Your task to perform on an android device: Open Reddit.com Image 0: 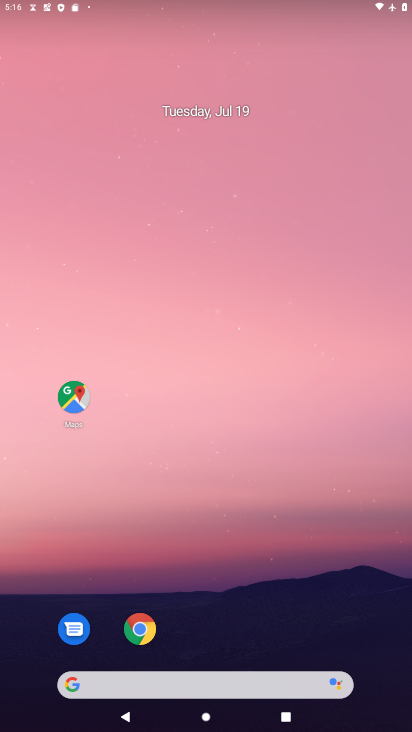
Step 0: press home button
Your task to perform on an android device: Open Reddit.com Image 1: 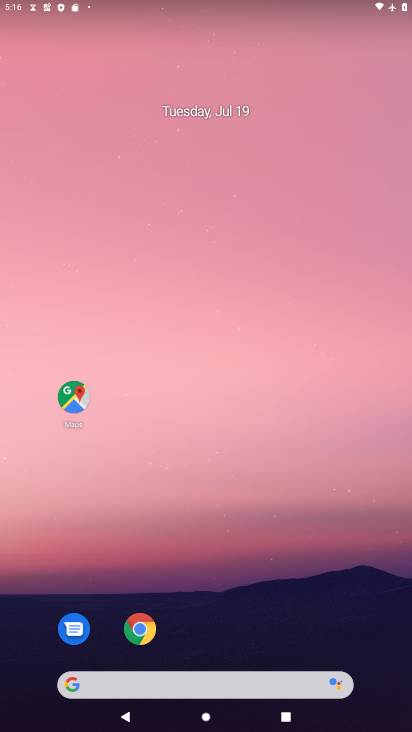
Step 1: click (65, 687)
Your task to perform on an android device: Open Reddit.com Image 2: 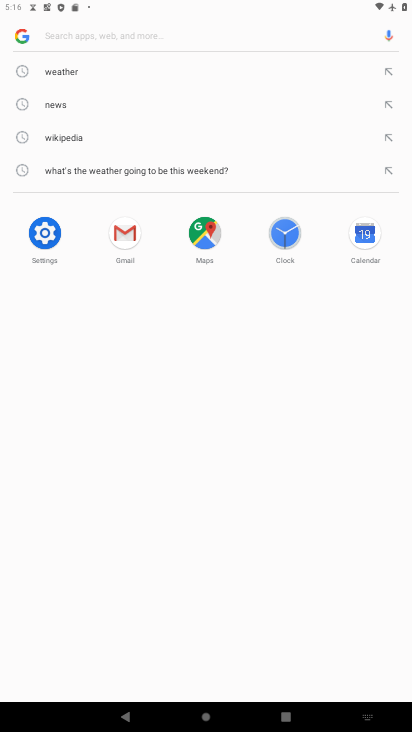
Step 2: type "Reddit.com"
Your task to perform on an android device: Open Reddit.com Image 3: 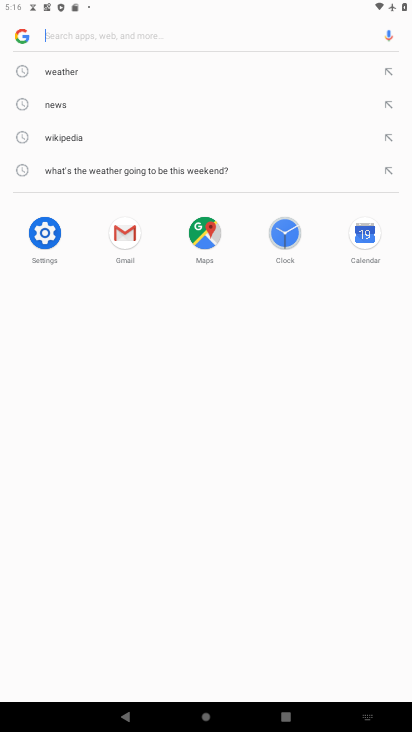
Step 3: click (221, 32)
Your task to perform on an android device: Open Reddit.com Image 4: 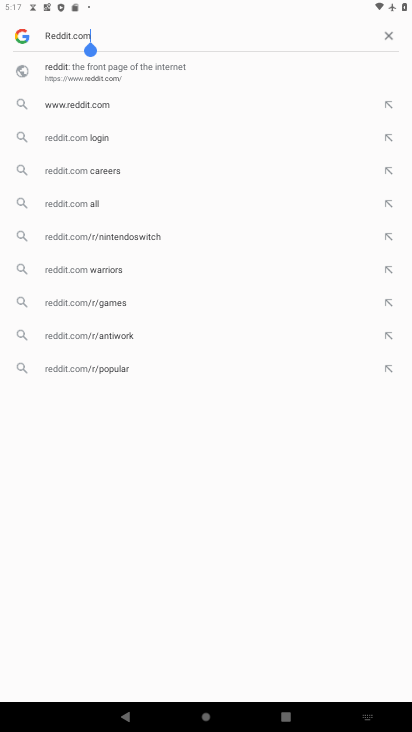
Step 4: click (62, 71)
Your task to perform on an android device: Open Reddit.com Image 5: 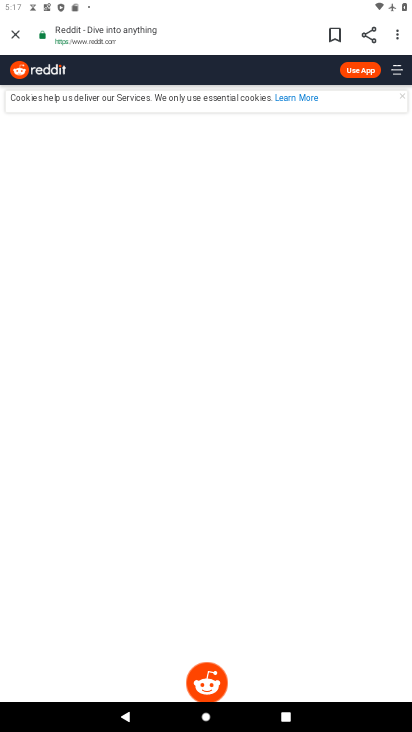
Step 5: task complete